Your task to perform on an android device: Go to Amazon Image 0: 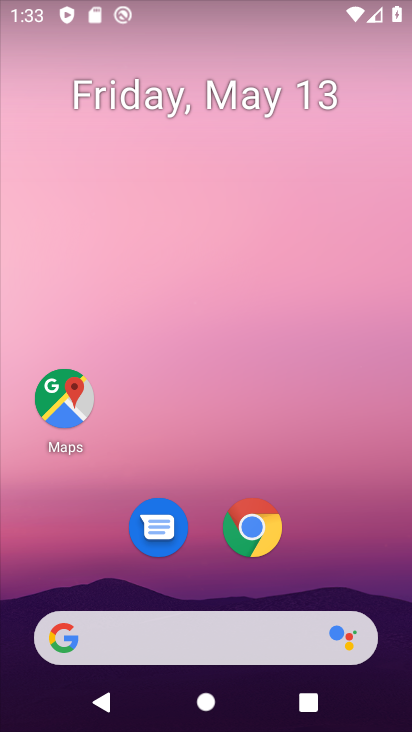
Step 0: click (68, 400)
Your task to perform on an android device: Go to Amazon Image 1: 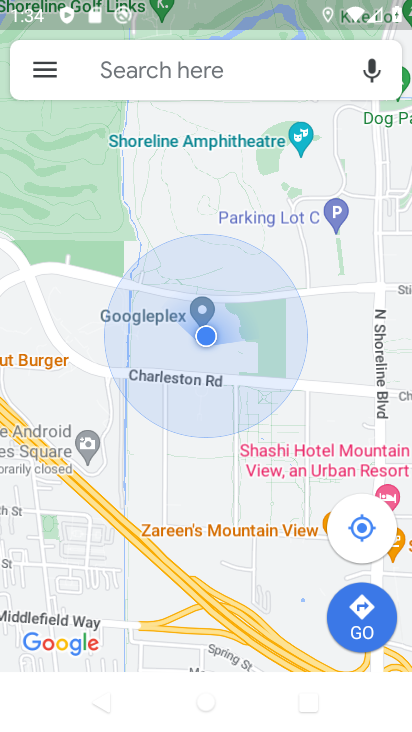
Step 1: press home button
Your task to perform on an android device: Go to Amazon Image 2: 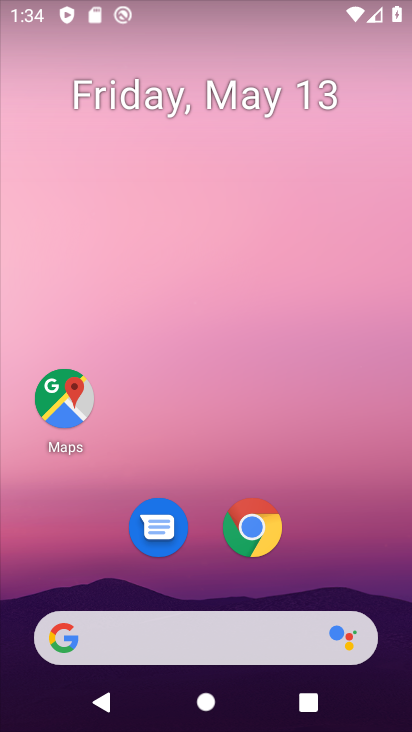
Step 2: click (255, 531)
Your task to perform on an android device: Go to Amazon Image 3: 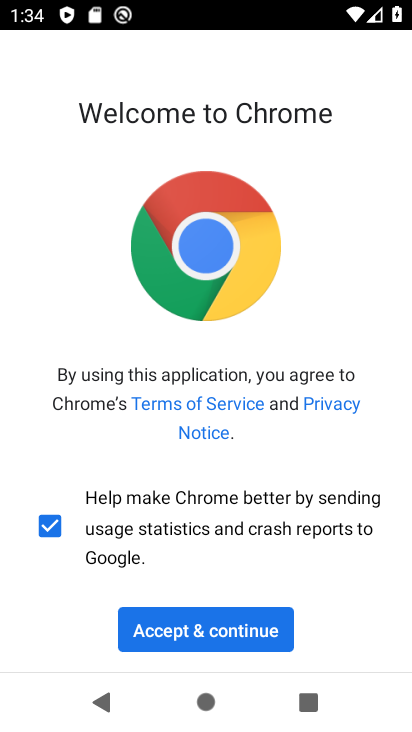
Step 3: click (183, 635)
Your task to perform on an android device: Go to Amazon Image 4: 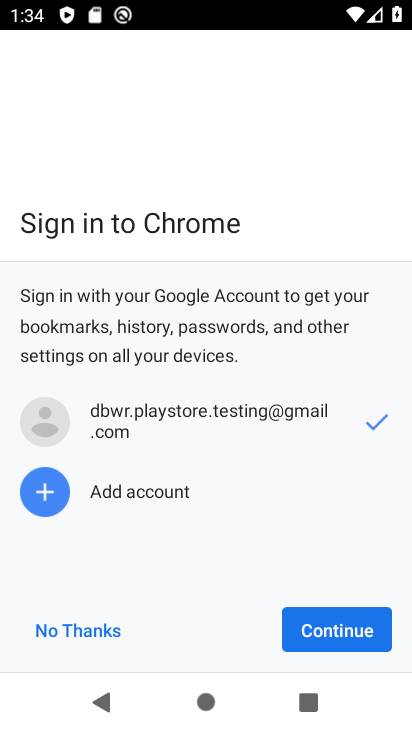
Step 4: click (313, 631)
Your task to perform on an android device: Go to Amazon Image 5: 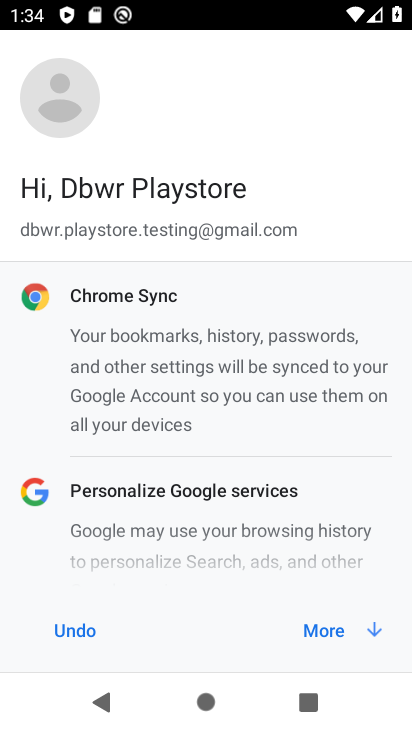
Step 5: click (313, 631)
Your task to perform on an android device: Go to Amazon Image 6: 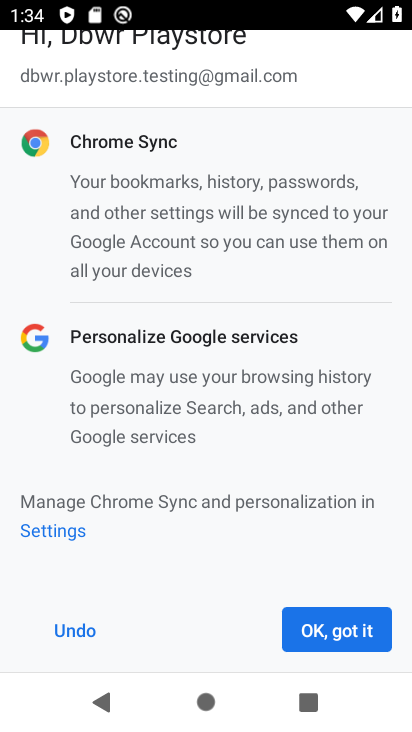
Step 6: click (335, 623)
Your task to perform on an android device: Go to Amazon Image 7: 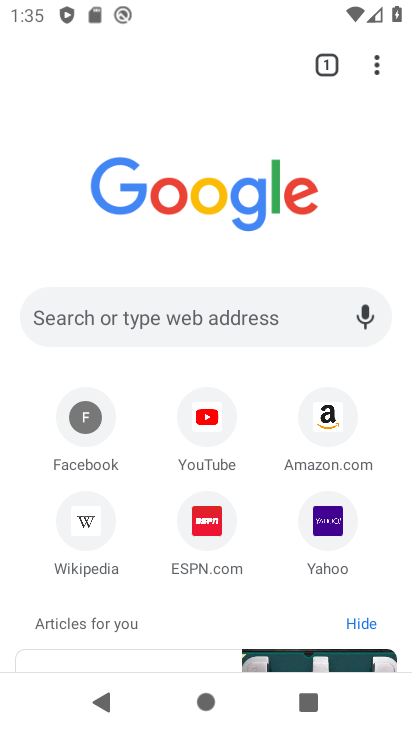
Step 7: click (320, 432)
Your task to perform on an android device: Go to Amazon Image 8: 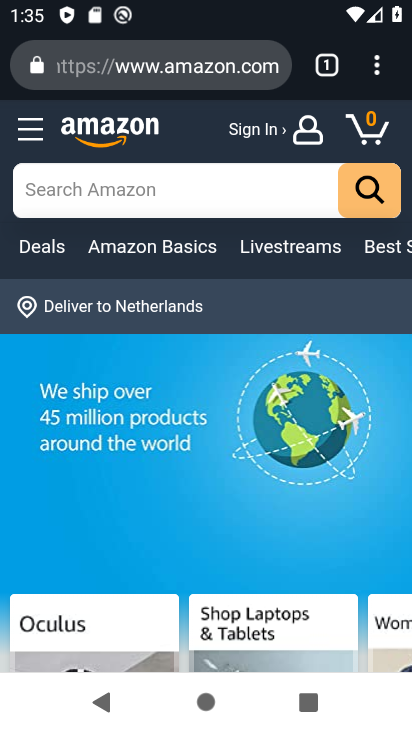
Step 8: task complete